Your task to perform on an android device: What's the latest video from GameSpot Trailers? Image 0: 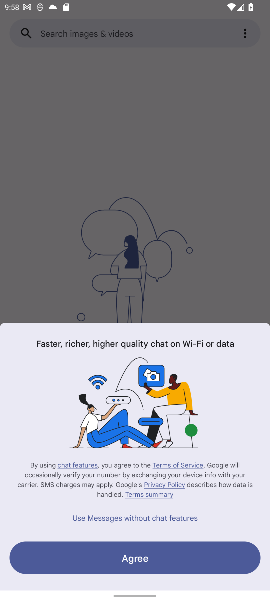
Step 0: press home button
Your task to perform on an android device: What's the latest video from GameSpot Trailers? Image 1: 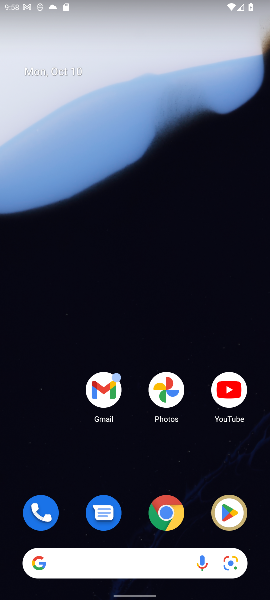
Step 1: drag from (131, 534) to (110, 18)
Your task to perform on an android device: What's the latest video from GameSpot Trailers? Image 2: 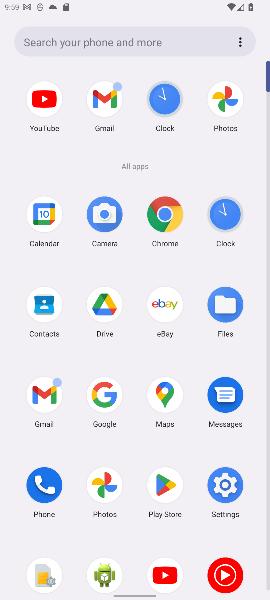
Step 2: click (100, 395)
Your task to perform on an android device: What's the latest video from GameSpot Trailers? Image 3: 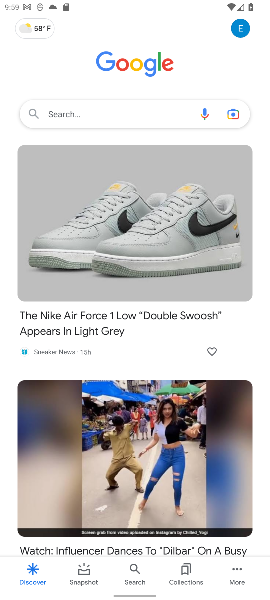
Step 3: click (98, 103)
Your task to perform on an android device: What's the latest video from GameSpot Trailers? Image 4: 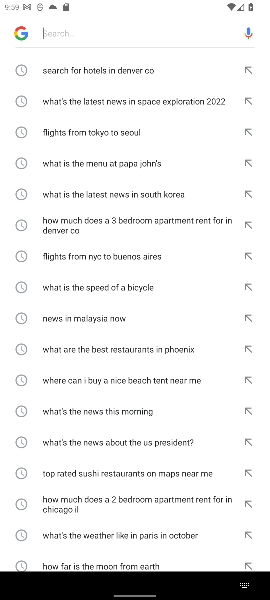
Step 4: type "What's the latest video from GameSpot Trailers?"
Your task to perform on an android device: What's the latest video from GameSpot Trailers? Image 5: 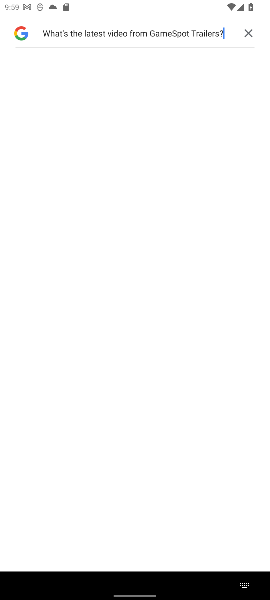
Step 5: task complete